Your task to perform on an android device: Show the shopping cart on amazon. Add "corsair k70" to the cart on amazon Image 0: 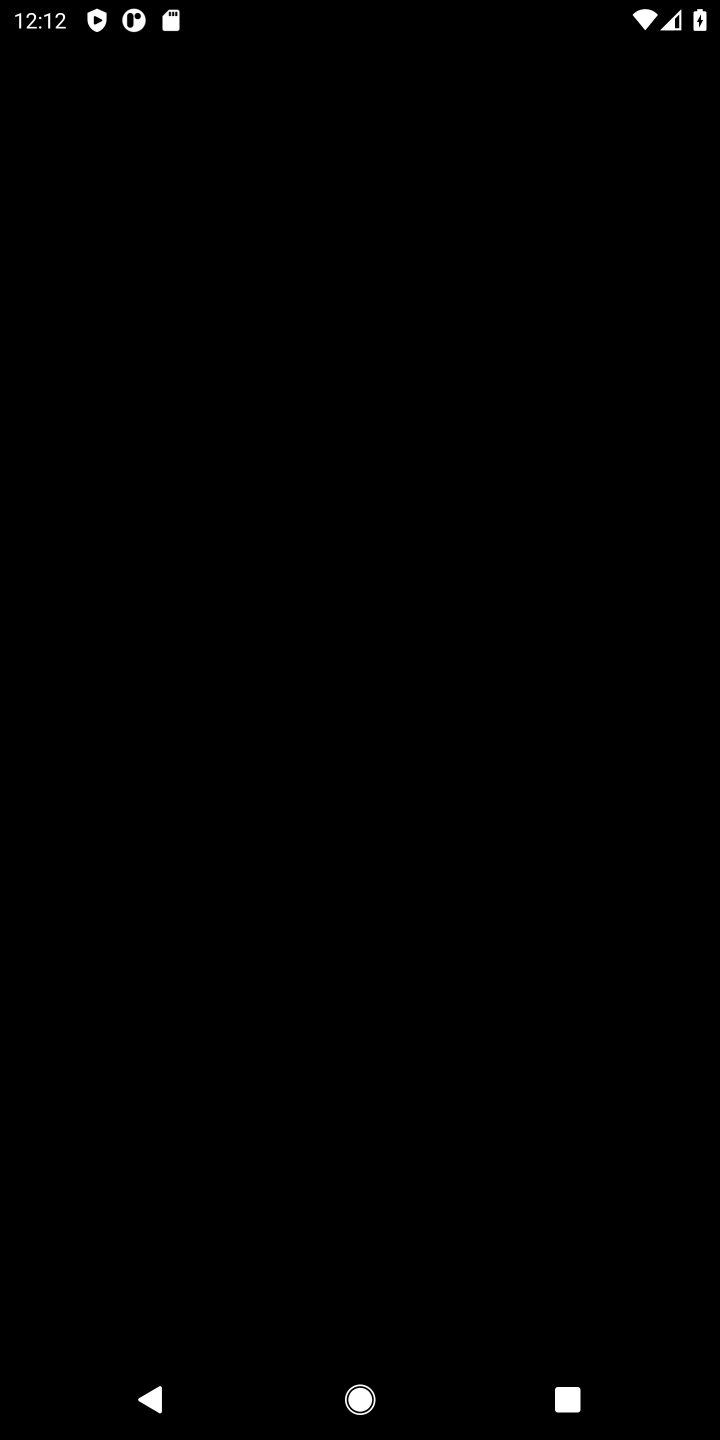
Step 0: press home button
Your task to perform on an android device: Show the shopping cart on amazon. Add "corsair k70" to the cart on amazon Image 1: 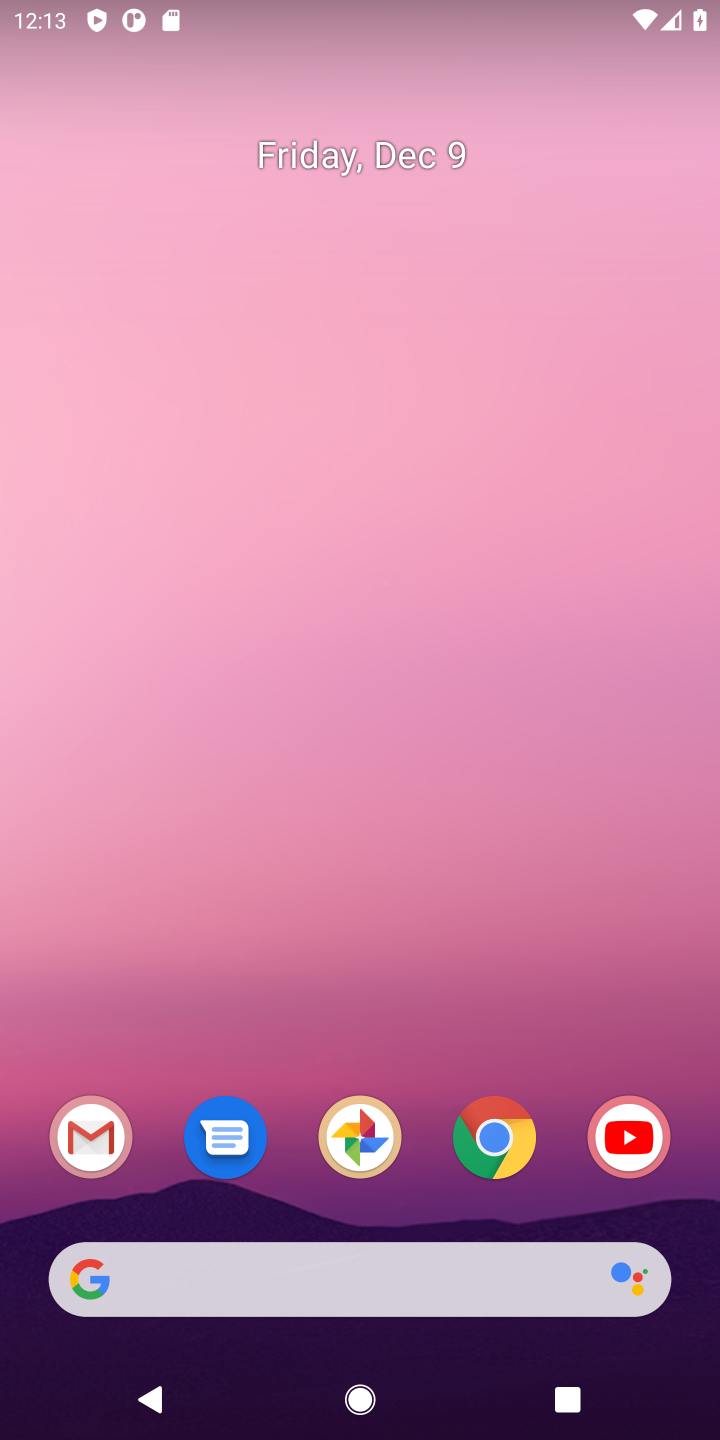
Step 1: click (486, 1147)
Your task to perform on an android device: Show the shopping cart on amazon. Add "corsair k70" to the cart on amazon Image 2: 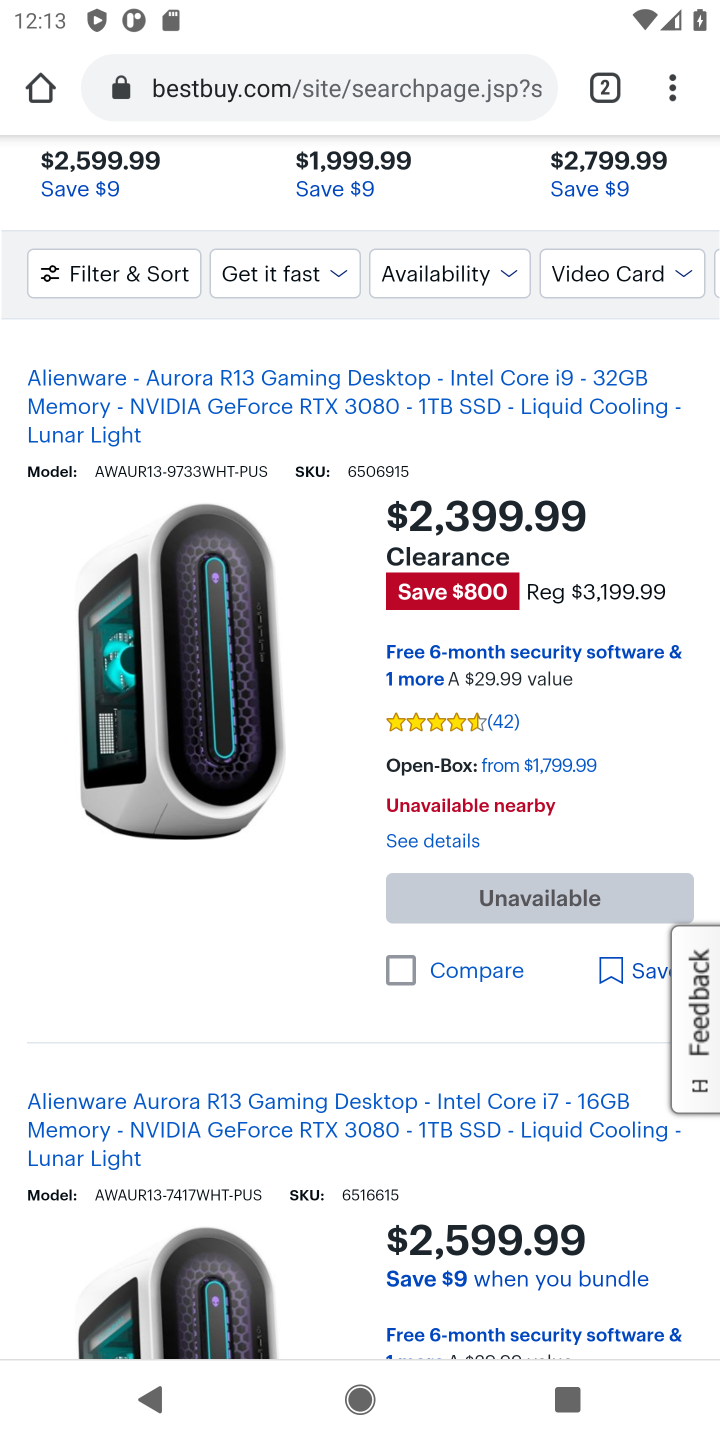
Step 2: click (412, 99)
Your task to perform on an android device: Show the shopping cart on amazon. Add "corsair k70" to the cart on amazon Image 3: 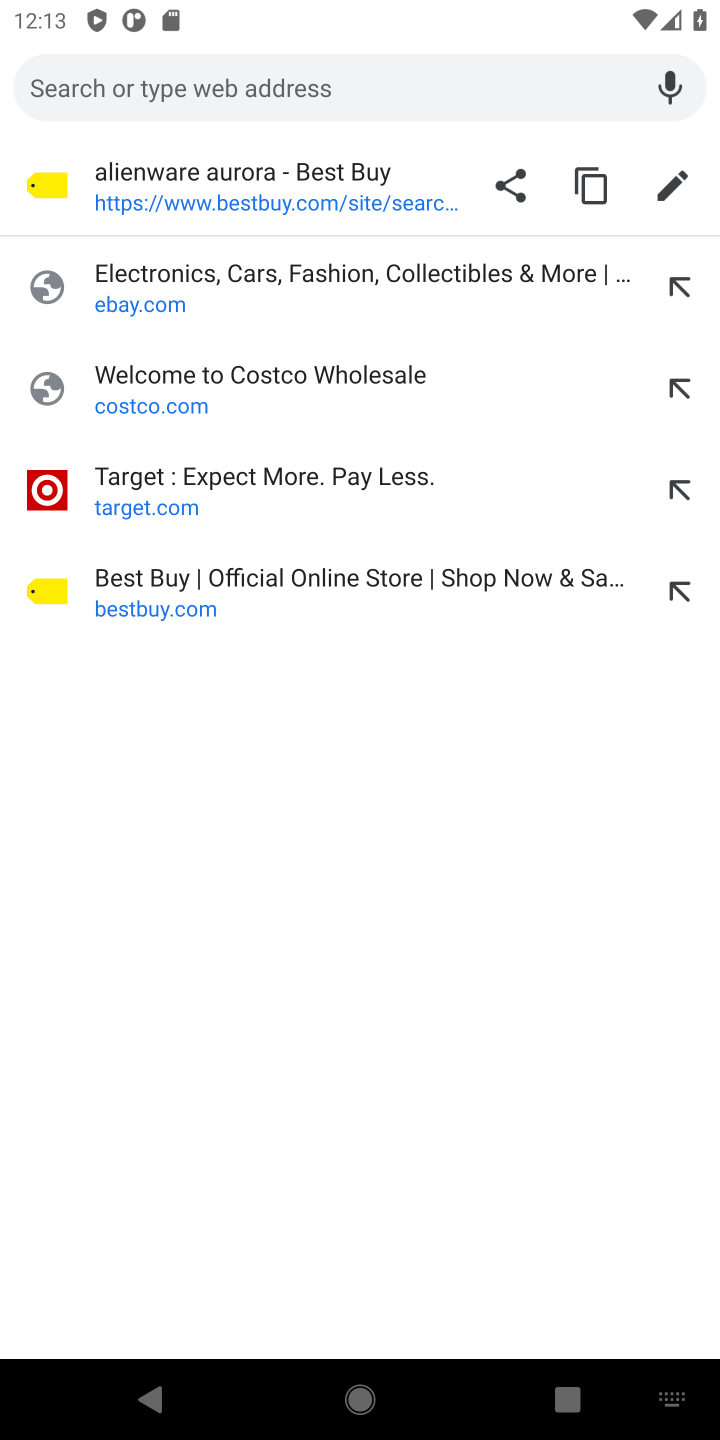
Step 3: type "AMAZON"
Your task to perform on an android device: Show the shopping cart on amazon. Add "corsair k70" to the cart on amazon Image 4: 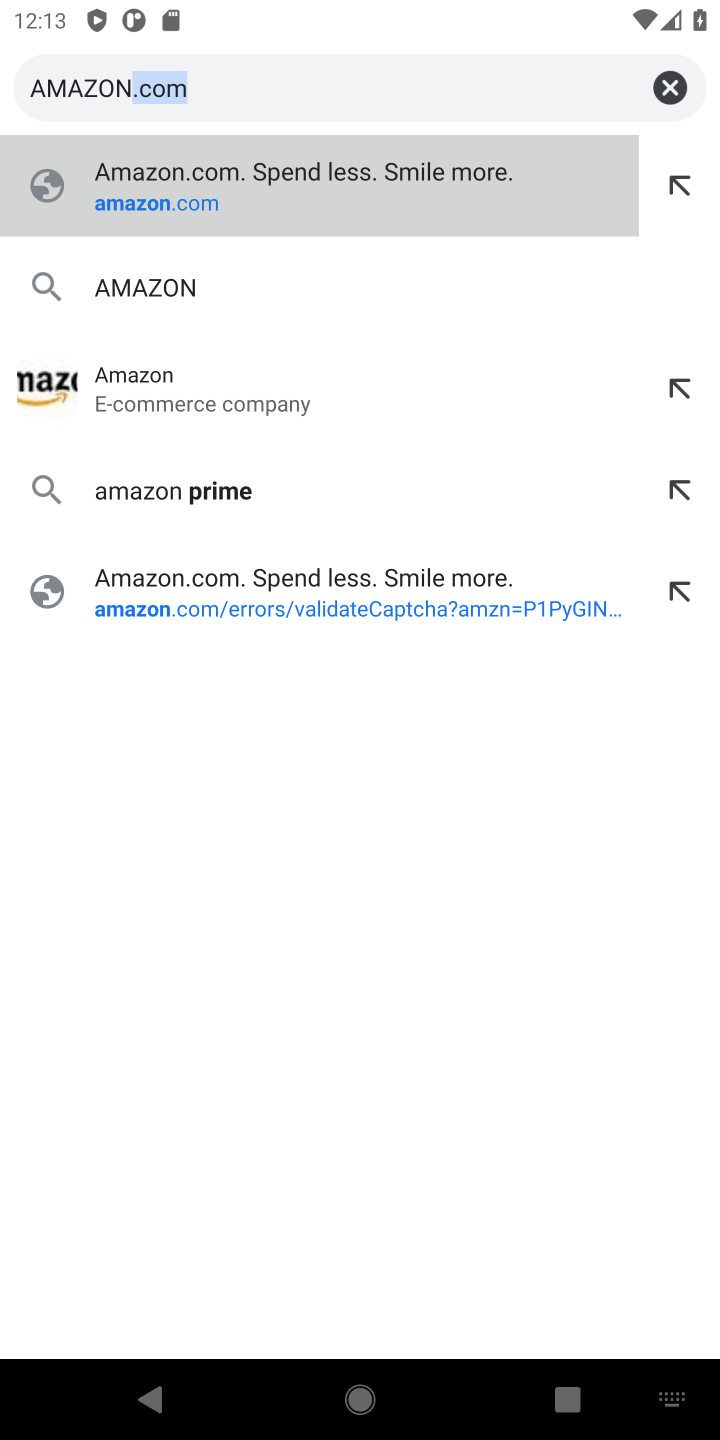
Step 4: click (226, 184)
Your task to perform on an android device: Show the shopping cart on amazon. Add "corsair k70" to the cart on amazon Image 5: 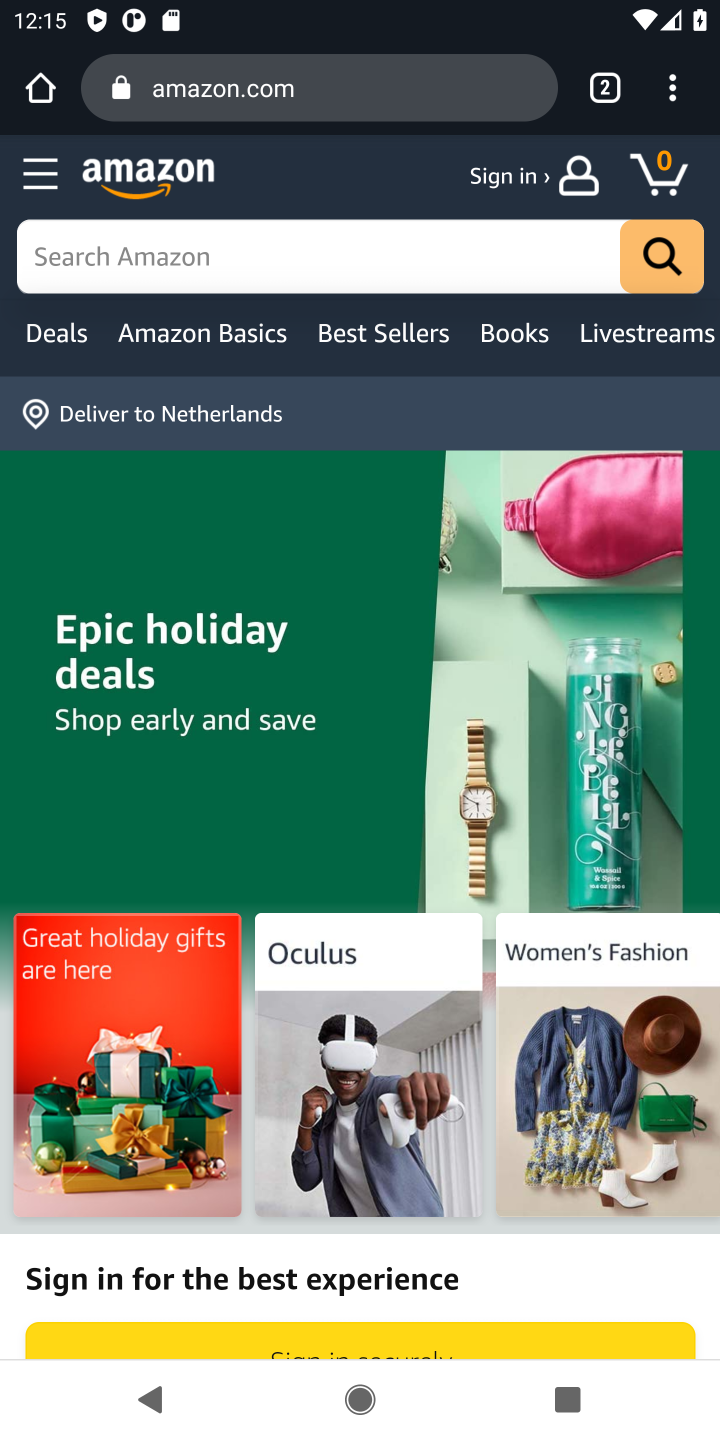
Step 5: click (479, 268)
Your task to perform on an android device: Show the shopping cart on amazon. Add "corsair k70" to the cart on amazon Image 6: 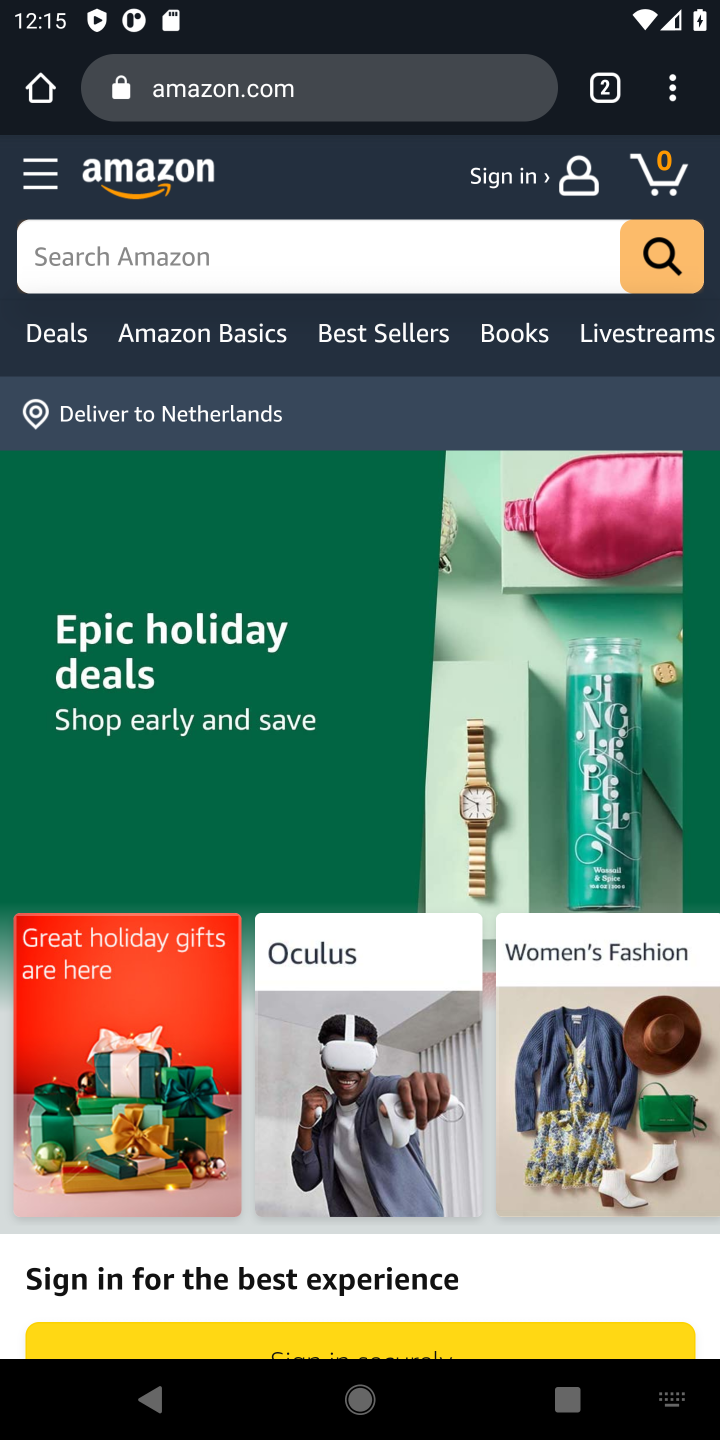
Step 6: type "corsair k70"
Your task to perform on an android device: Show the shopping cart on amazon. Add "corsair k70" to the cart on amazon Image 7: 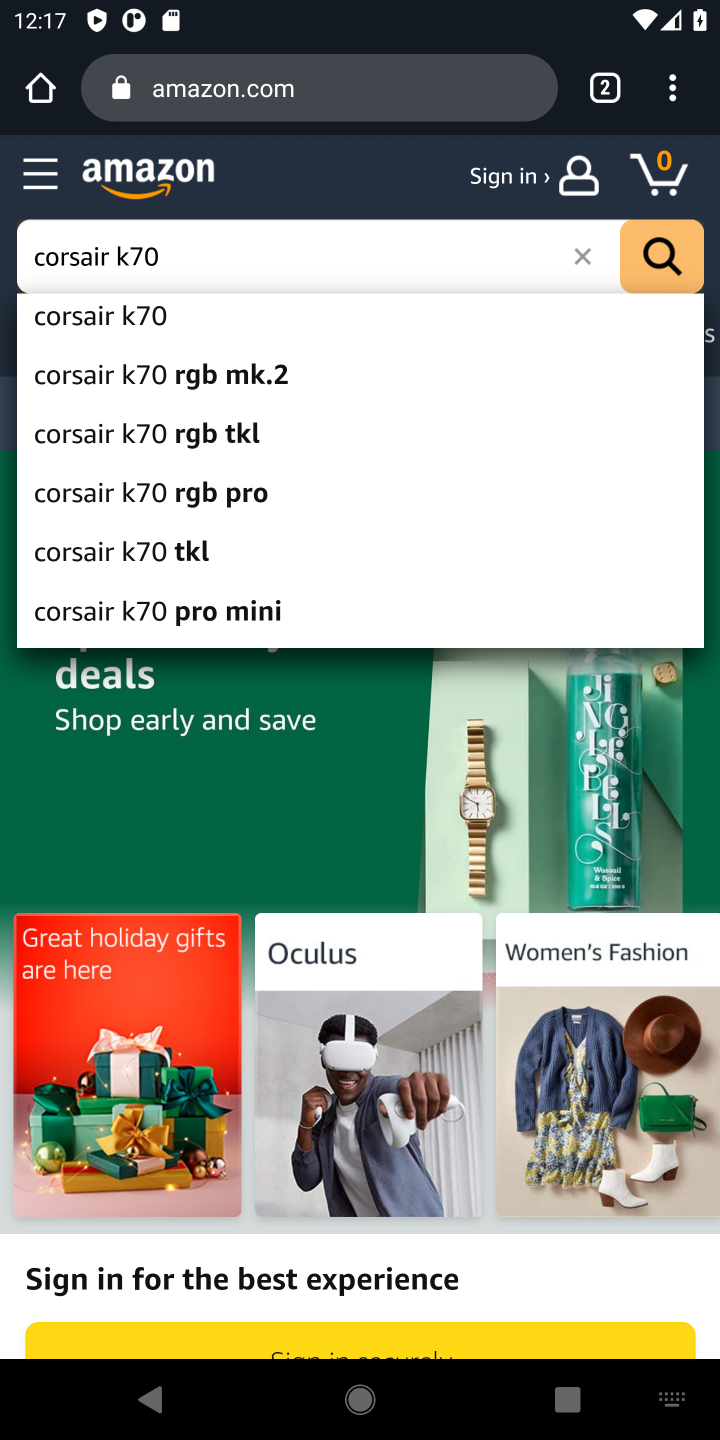
Step 7: click (178, 307)
Your task to perform on an android device: Show the shopping cart on amazon. Add "corsair k70" to the cart on amazon Image 8: 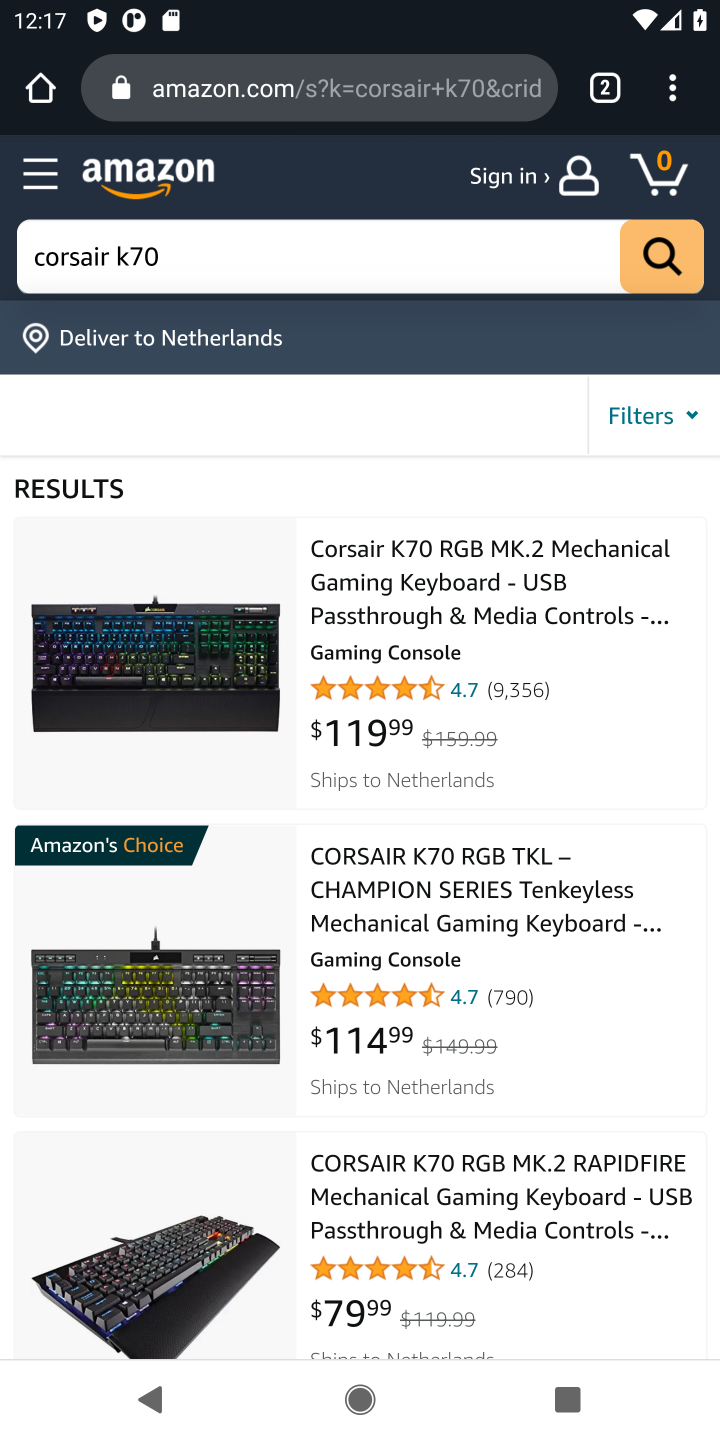
Step 8: click (619, 566)
Your task to perform on an android device: Show the shopping cart on amazon. Add "corsair k70" to the cart on amazon Image 9: 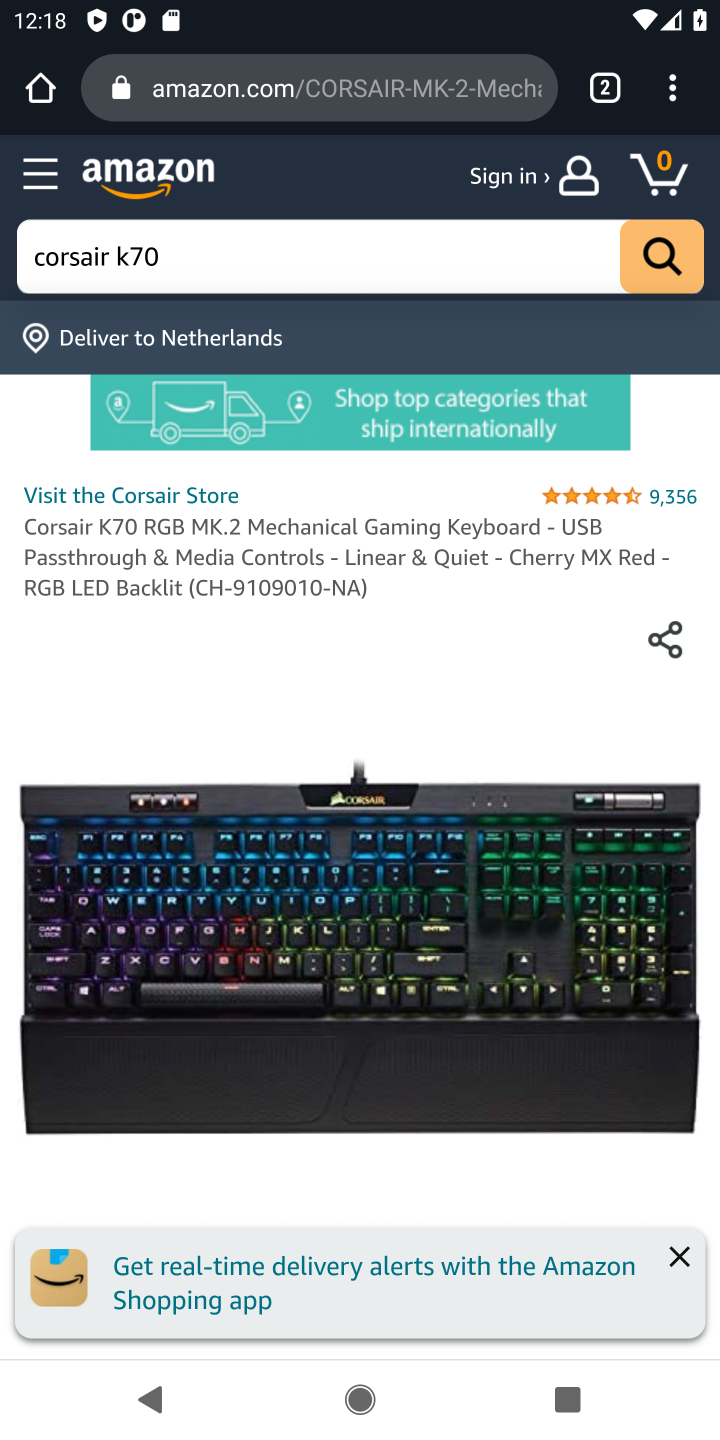
Step 9: click (655, 268)
Your task to perform on an android device: Show the shopping cart on amazon. Add "corsair k70" to the cart on amazon Image 10: 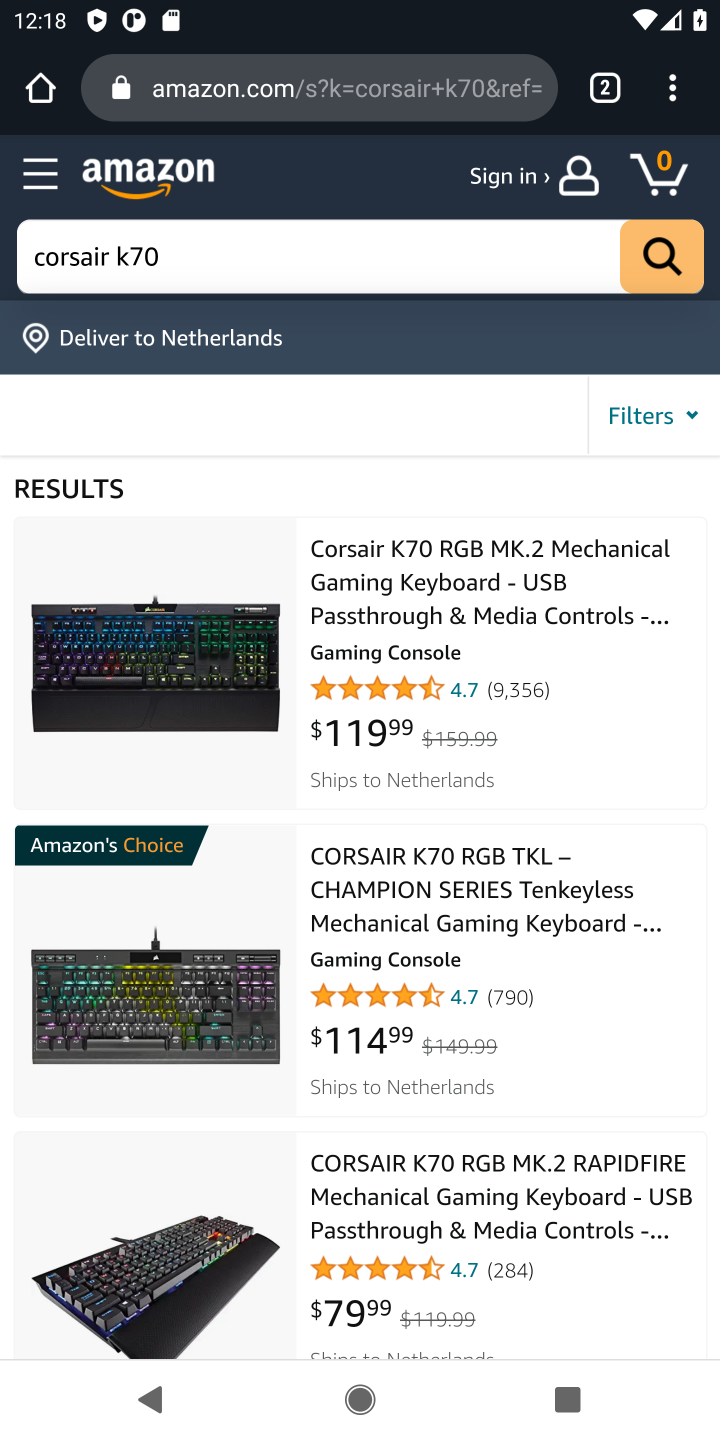
Step 10: click (513, 617)
Your task to perform on an android device: Show the shopping cart on amazon. Add "corsair k70" to the cart on amazon Image 11: 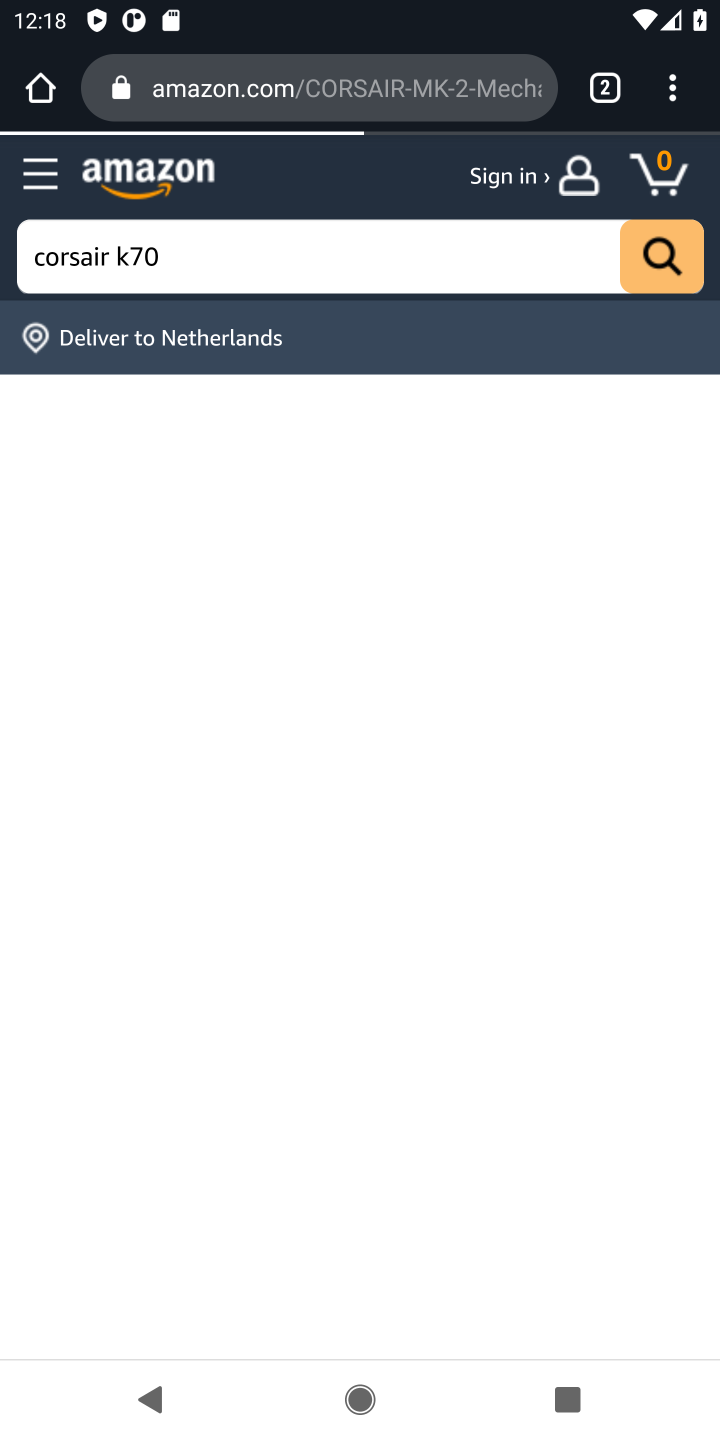
Step 11: task complete